Your task to perform on an android device: change the clock display to digital Image 0: 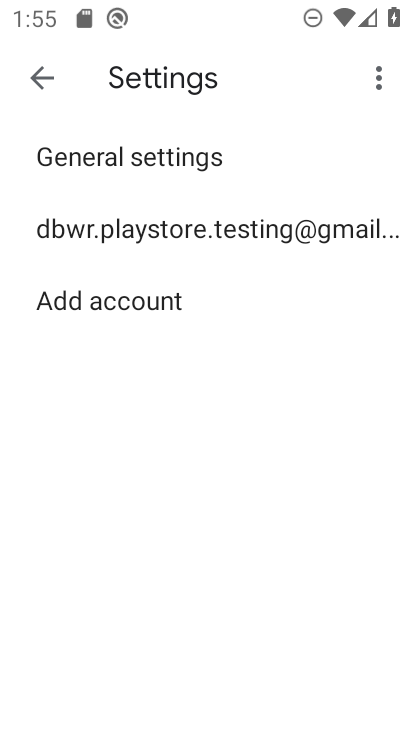
Step 0: click (152, 218)
Your task to perform on an android device: change the clock display to digital Image 1: 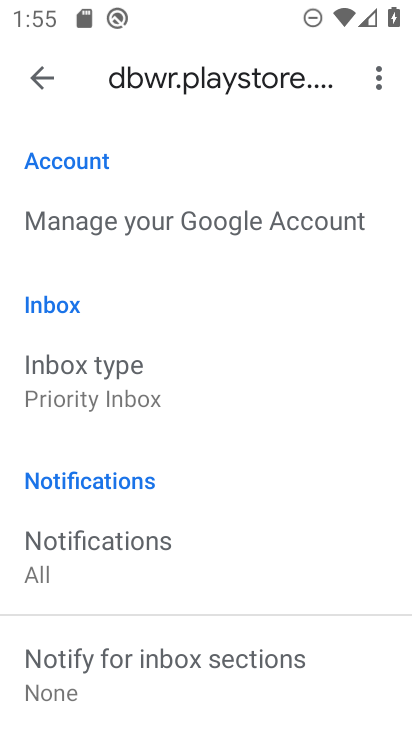
Step 1: press home button
Your task to perform on an android device: change the clock display to digital Image 2: 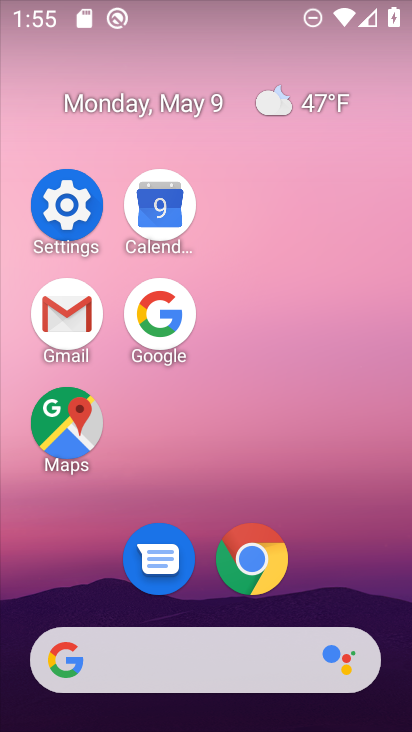
Step 2: drag from (339, 560) to (345, 241)
Your task to perform on an android device: change the clock display to digital Image 3: 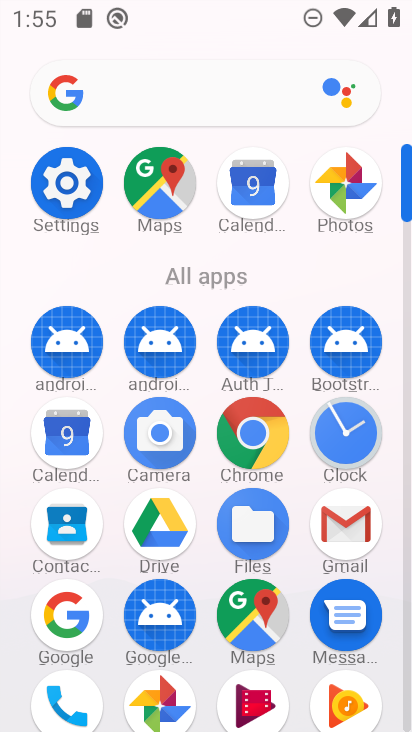
Step 3: drag from (361, 430) to (230, 246)
Your task to perform on an android device: change the clock display to digital Image 4: 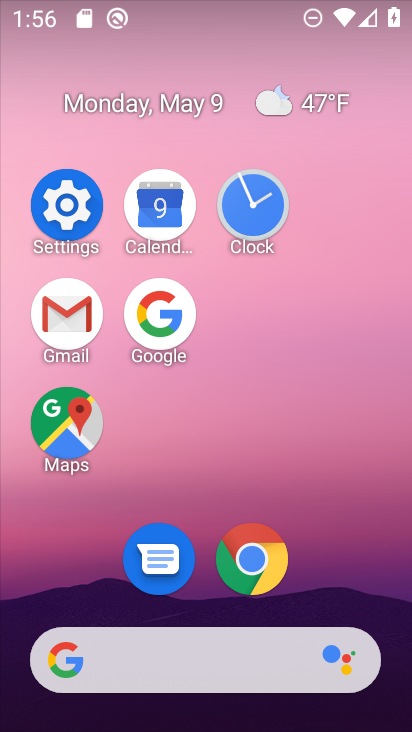
Step 4: click (239, 215)
Your task to perform on an android device: change the clock display to digital Image 5: 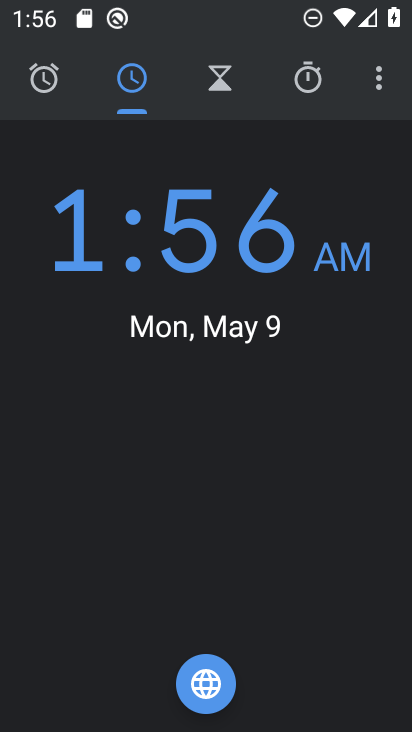
Step 5: click (368, 63)
Your task to perform on an android device: change the clock display to digital Image 6: 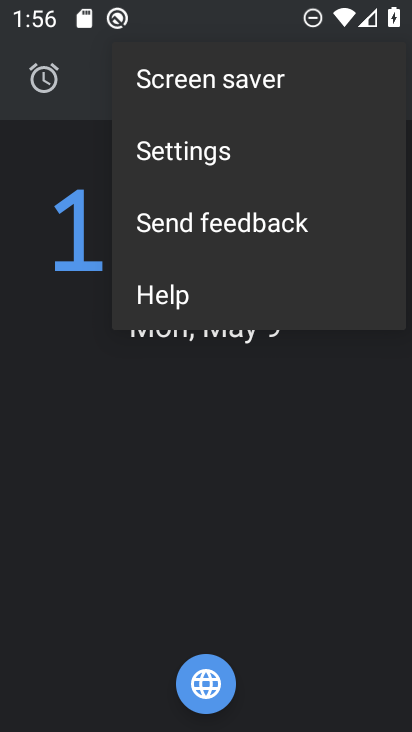
Step 6: click (281, 165)
Your task to perform on an android device: change the clock display to digital Image 7: 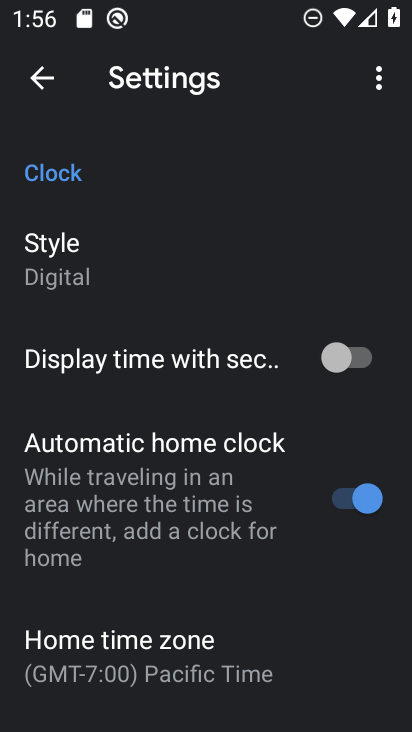
Step 7: task complete